Your task to perform on an android device: change your default location settings in chrome Image 0: 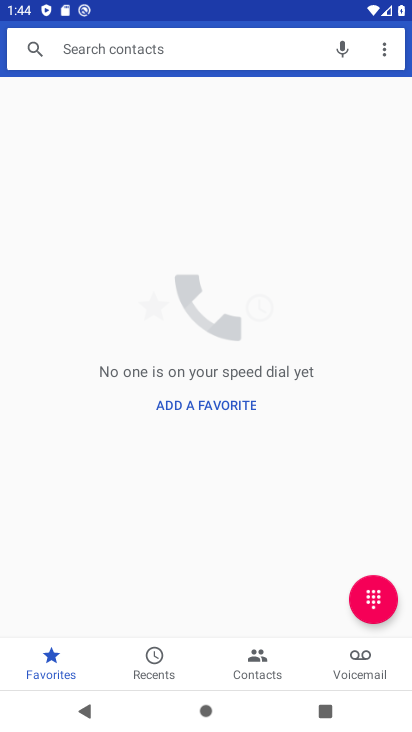
Step 0: press home button
Your task to perform on an android device: change your default location settings in chrome Image 1: 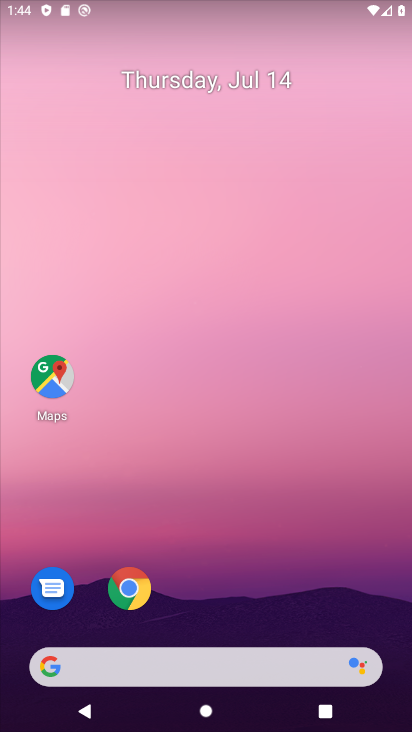
Step 1: drag from (279, 569) to (370, 6)
Your task to perform on an android device: change your default location settings in chrome Image 2: 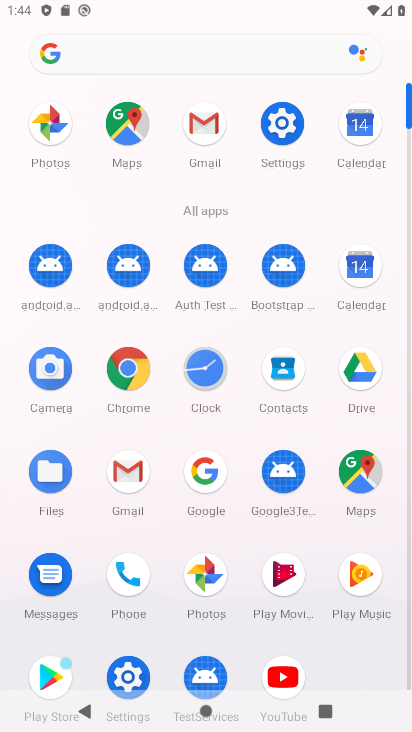
Step 2: click (132, 363)
Your task to perform on an android device: change your default location settings in chrome Image 3: 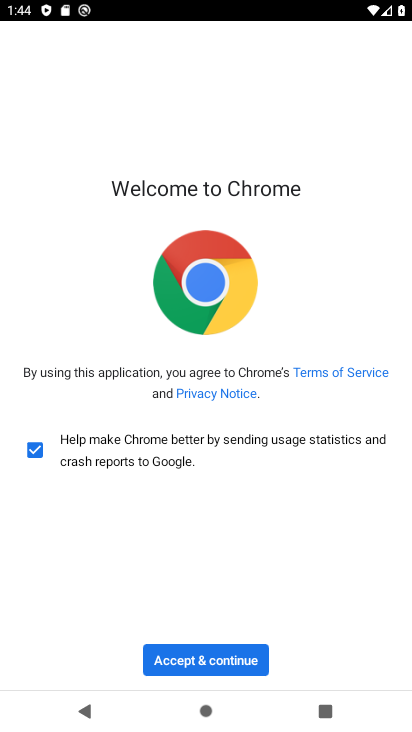
Step 3: click (214, 650)
Your task to perform on an android device: change your default location settings in chrome Image 4: 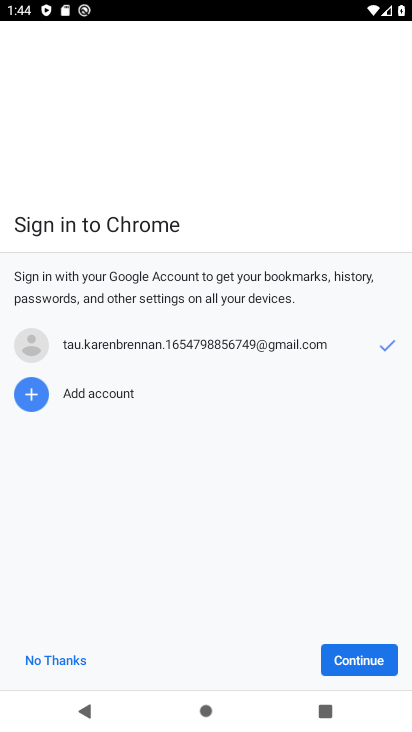
Step 4: click (348, 649)
Your task to perform on an android device: change your default location settings in chrome Image 5: 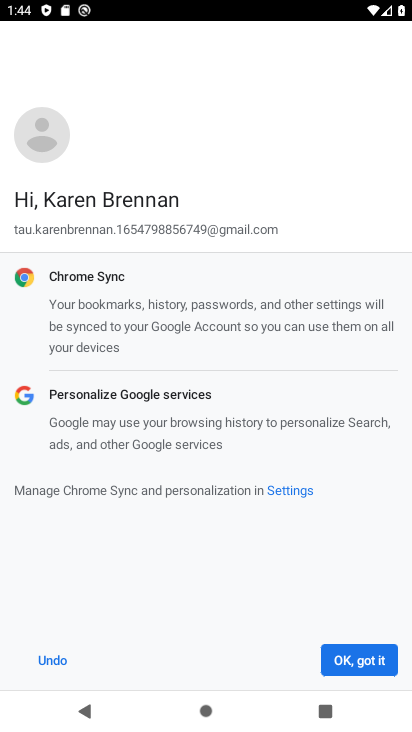
Step 5: click (348, 649)
Your task to perform on an android device: change your default location settings in chrome Image 6: 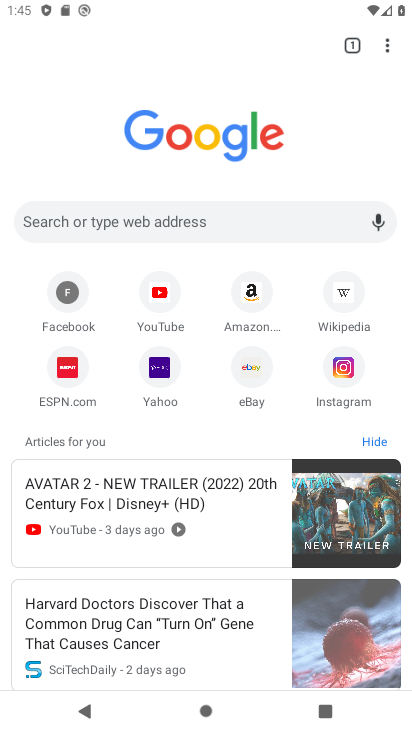
Step 6: click (392, 48)
Your task to perform on an android device: change your default location settings in chrome Image 7: 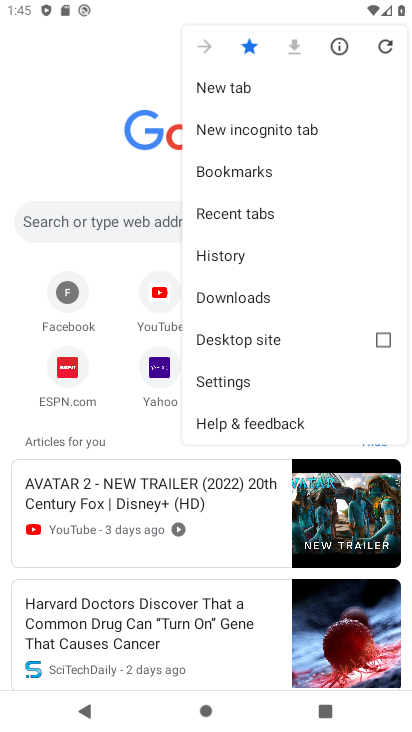
Step 7: click (250, 390)
Your task to perform on an android device: change your default location settings in chrome Image 8: 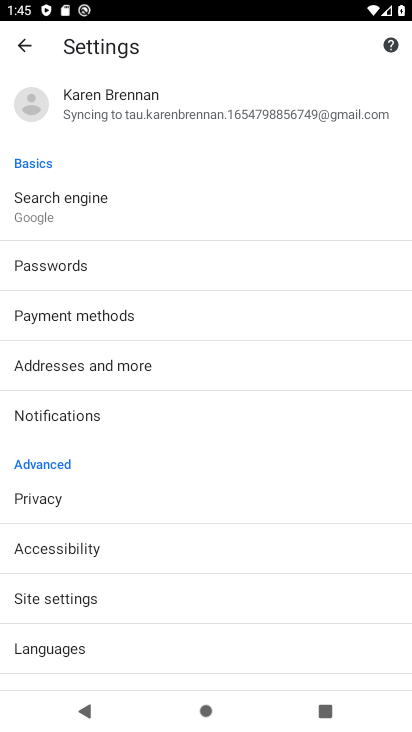
Step 8: click (130, 589)
Your task to perform on an android device: change your default location settings in chrome Image 9: 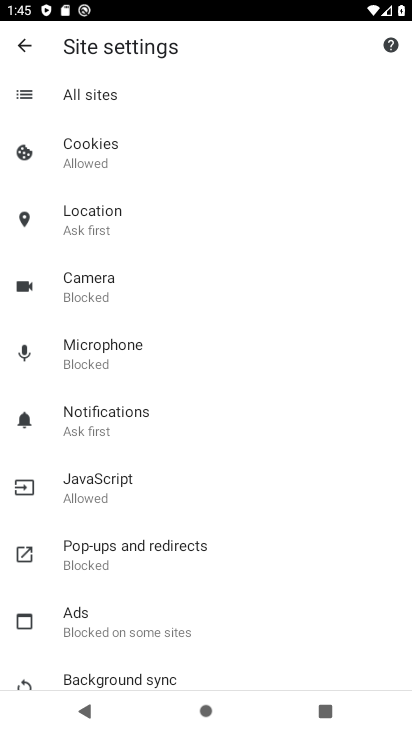
Step 9: click (135, 221)
Your task to perform on an android device: change your default location settings in chrome Image 10: 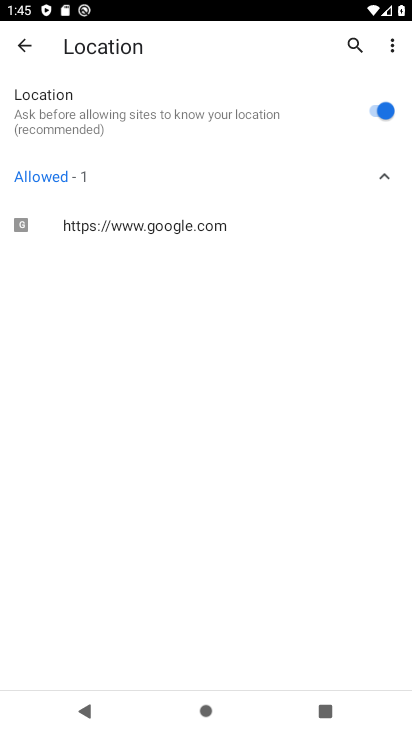
Step 10: click (387, 111)
Your task to perform on an android device: change your default location settings in chrome Image 11: 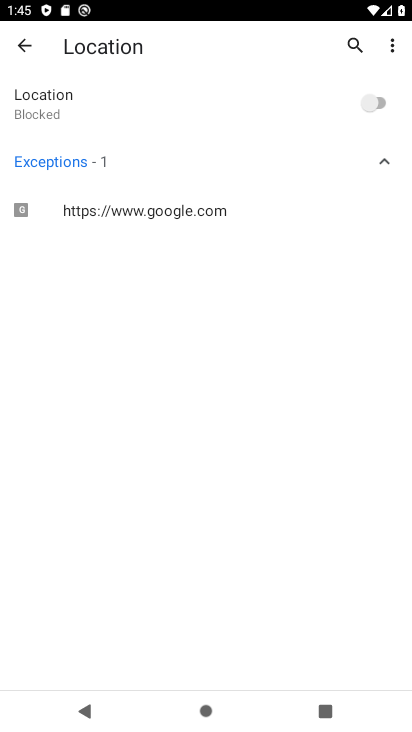
Step 11: task complete